Your task to perform on an android device: snooze an email in the gmail app Image 0: 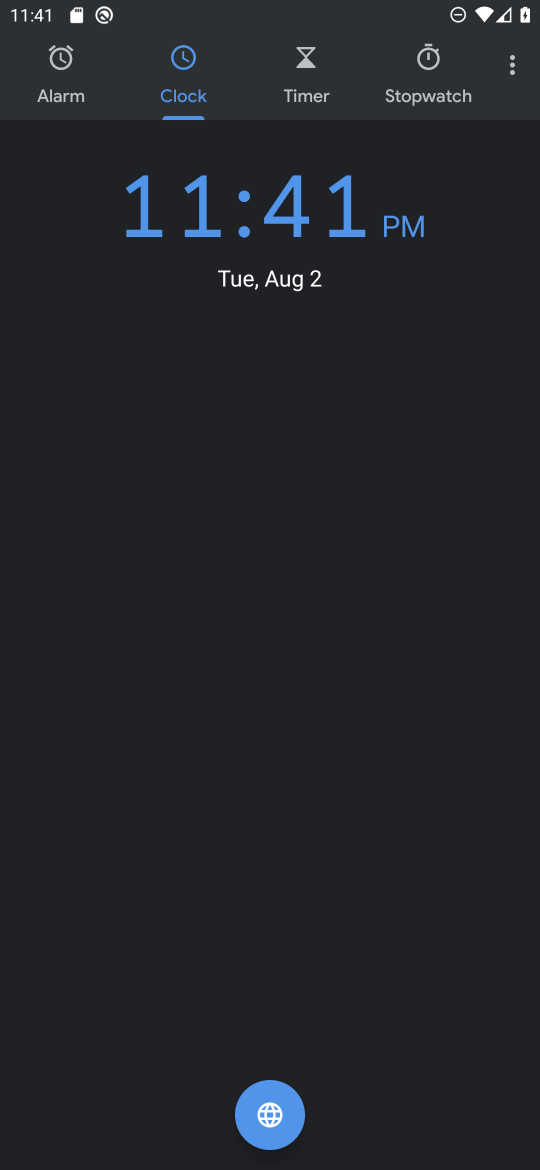
Step 0: press home button
Your task to perform on an android device: snooze an email in the gmail app Image 1: 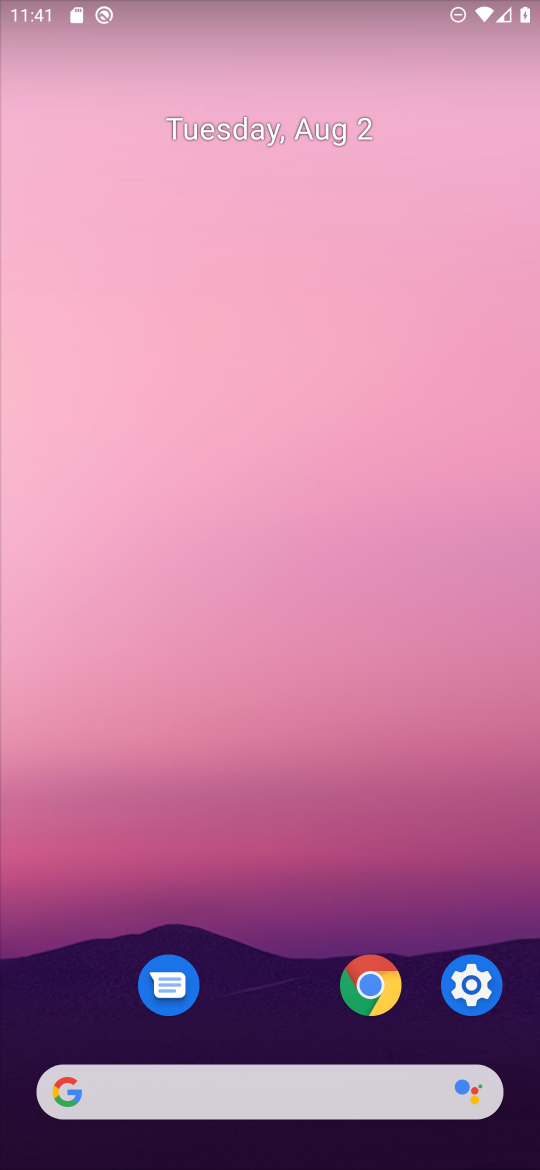
Step 1: drag from (429, 1091) to (453, 255)
Your task to perform on an android device: snooze an email in the gmail app Image 2: 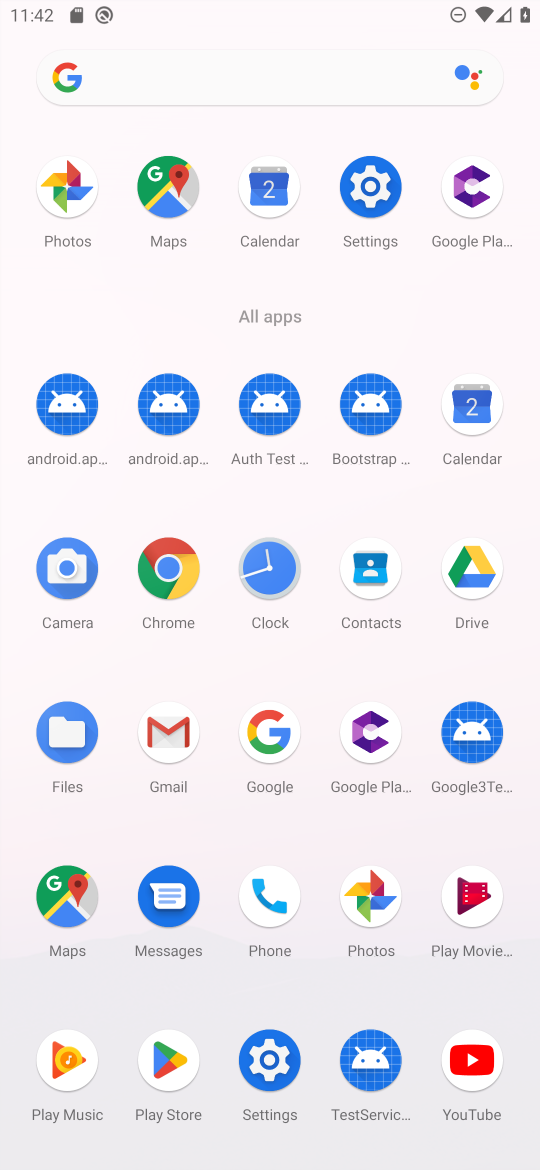
Step 2: click (175, 756)
Your task to perform on an android device: snooze an email in the gmail app Image 3: 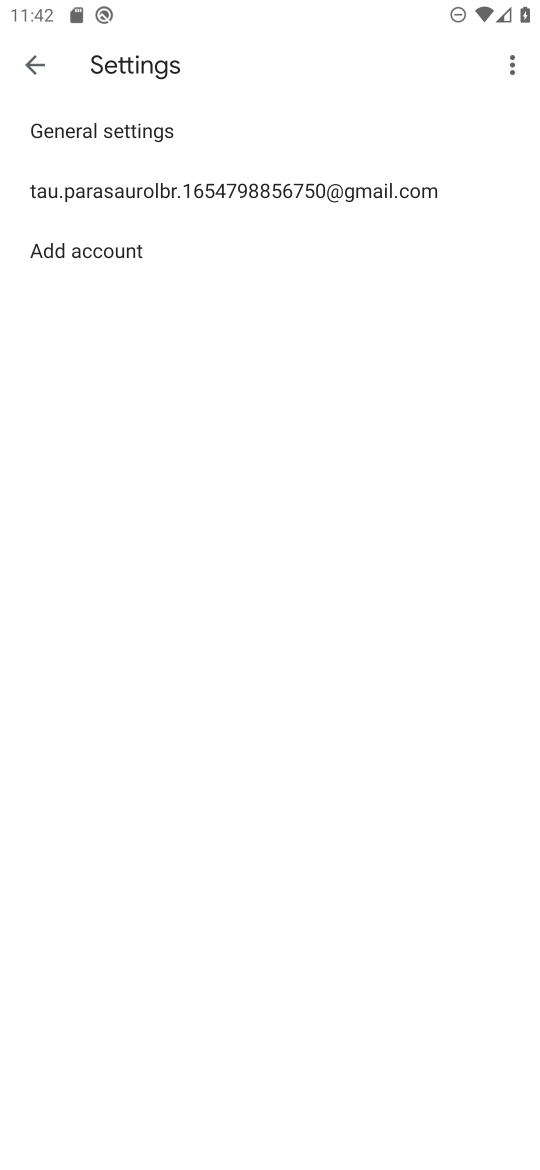
Step 3: click (35, 47)
Your task to perform on an android device: snooze an email in the gmail app Image 4: 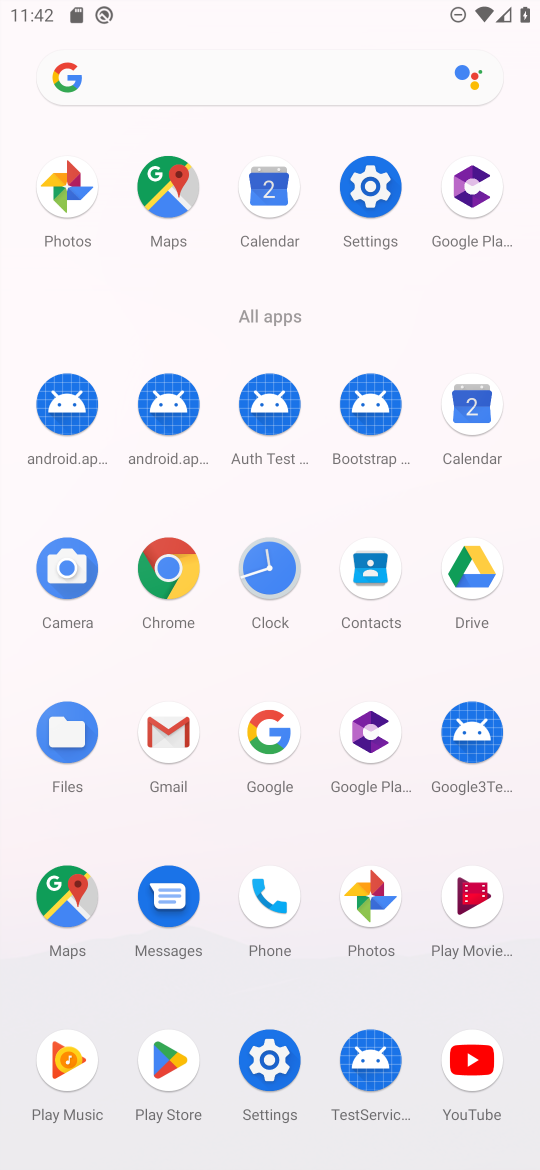
Step 4: click (191, 731)
Your task to perform on an android device: snooze an email in the gmail app Image 5: 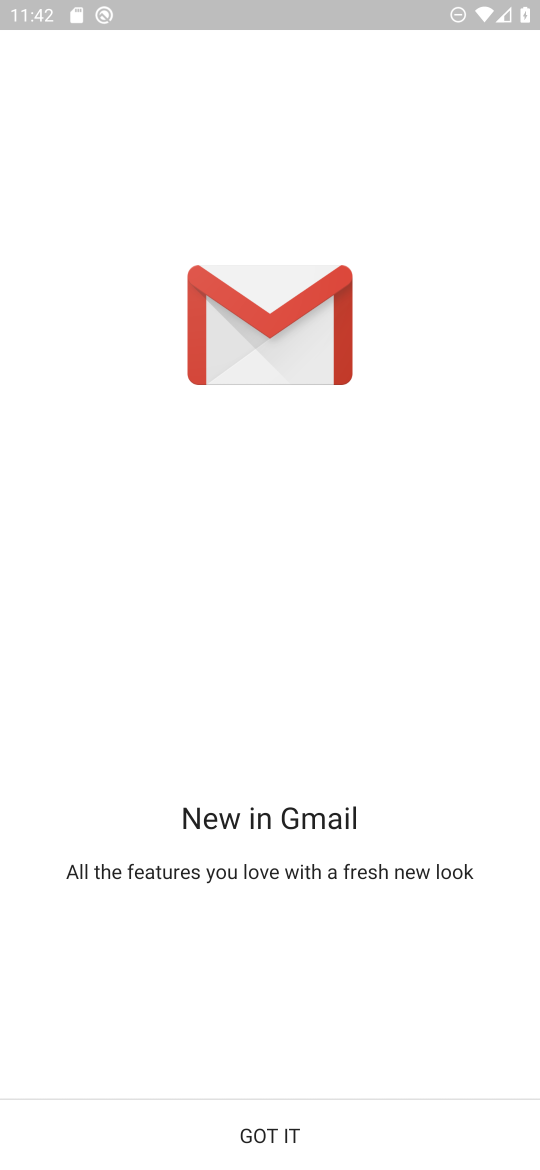
Step 5: click (242, 1123)
Your task to perform on an android device: snooze an email in the gmail app Image 6: 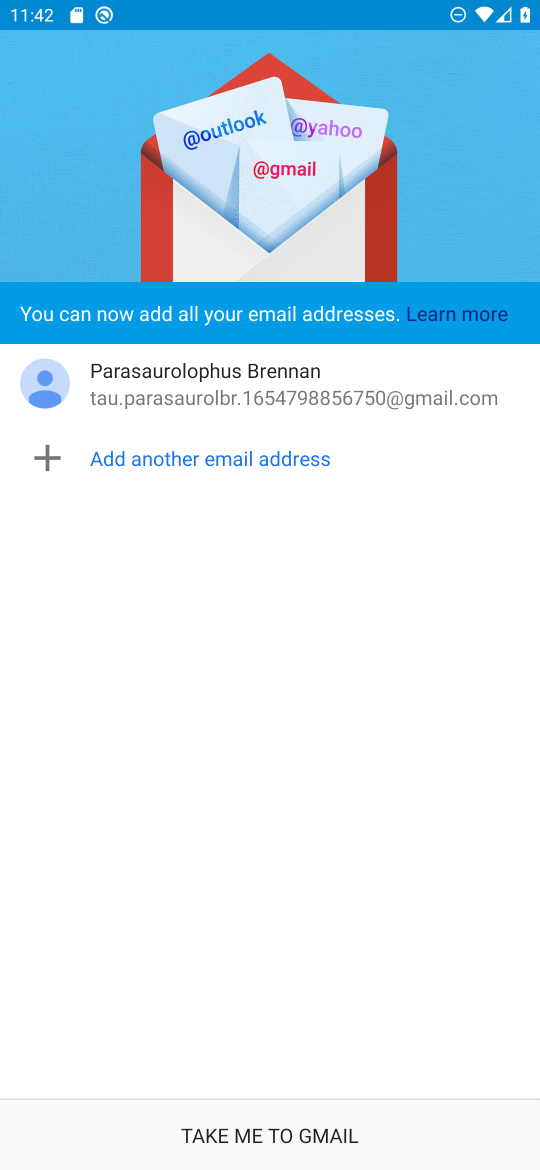
Step 6: click (271, 1133)
Your task to perform on an android device: snooze an email in the gmail app Image 7: 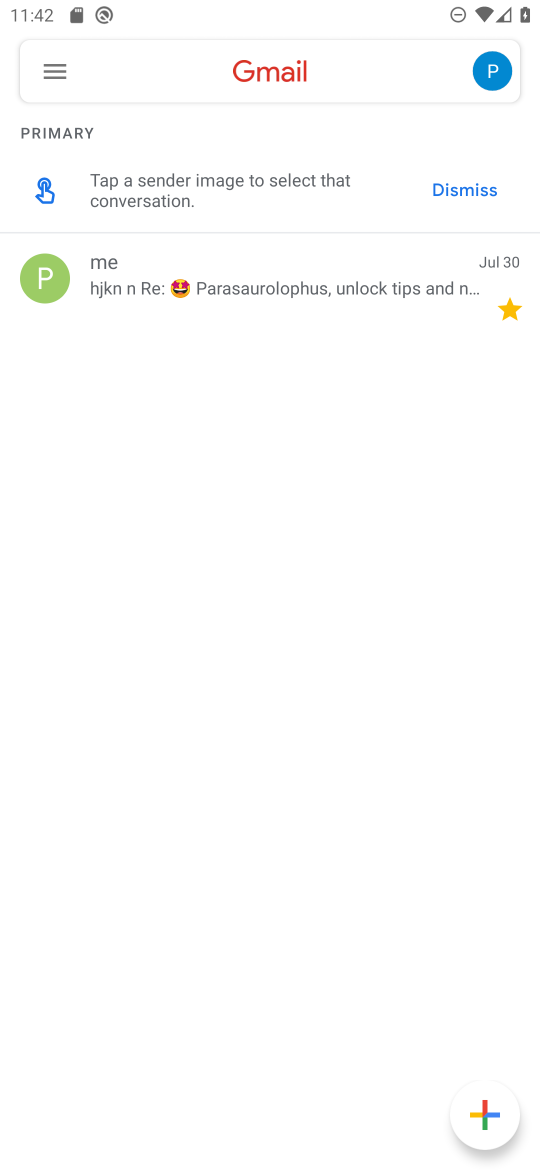
Step 7: click (62, 61)
Your task to perform on an android device: snooze an email in the gmail app Image 8: 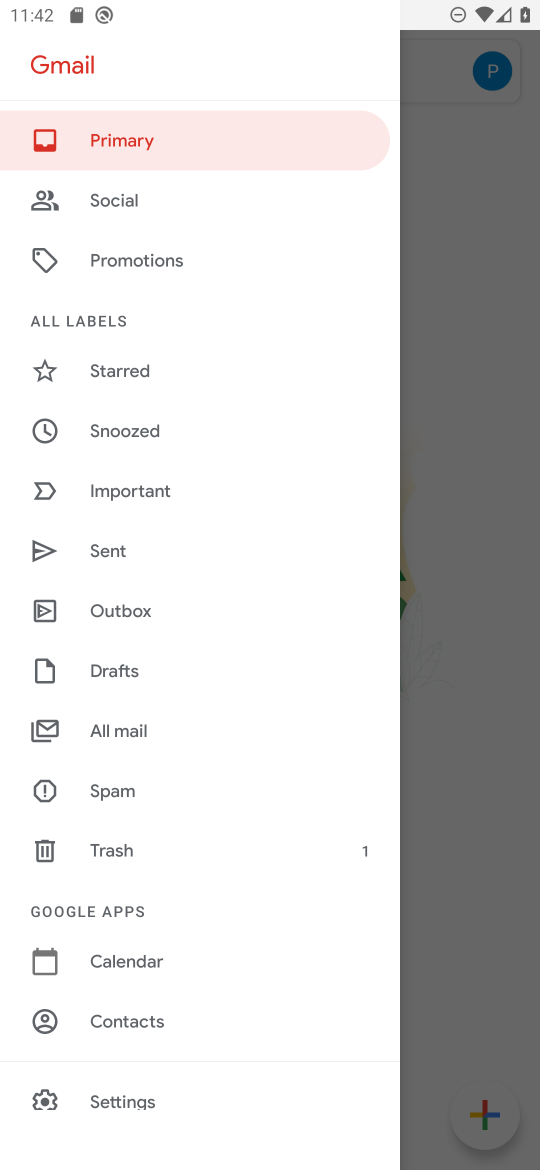
Step 8: click (145, 432)
Your task to perform on an android device: snooze an email in the gmail app Image 9: 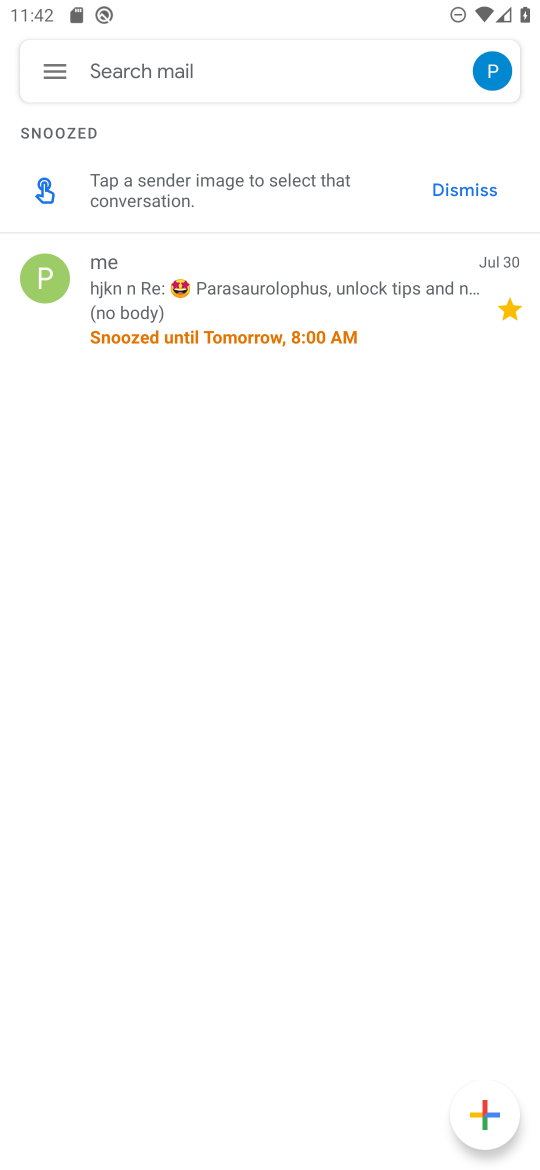
Step 9: click (438, 176)
Your task to perform on an android device: snooze an email in the gmail app Image 10: 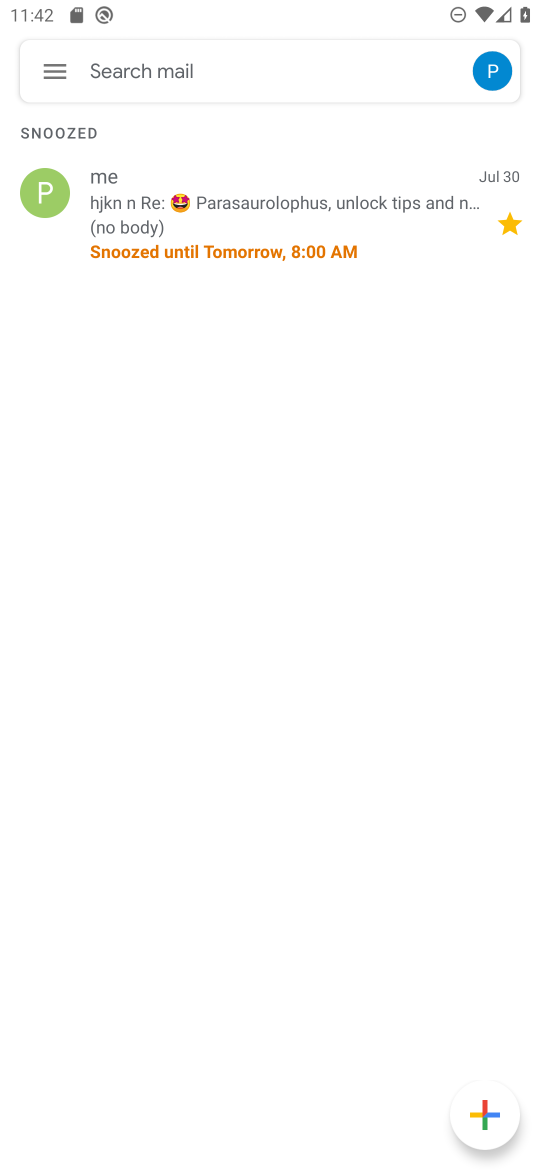
Step 10: click (213, 202)
Your task to perform on an android device: snooze an email in the gmail app Image 11: 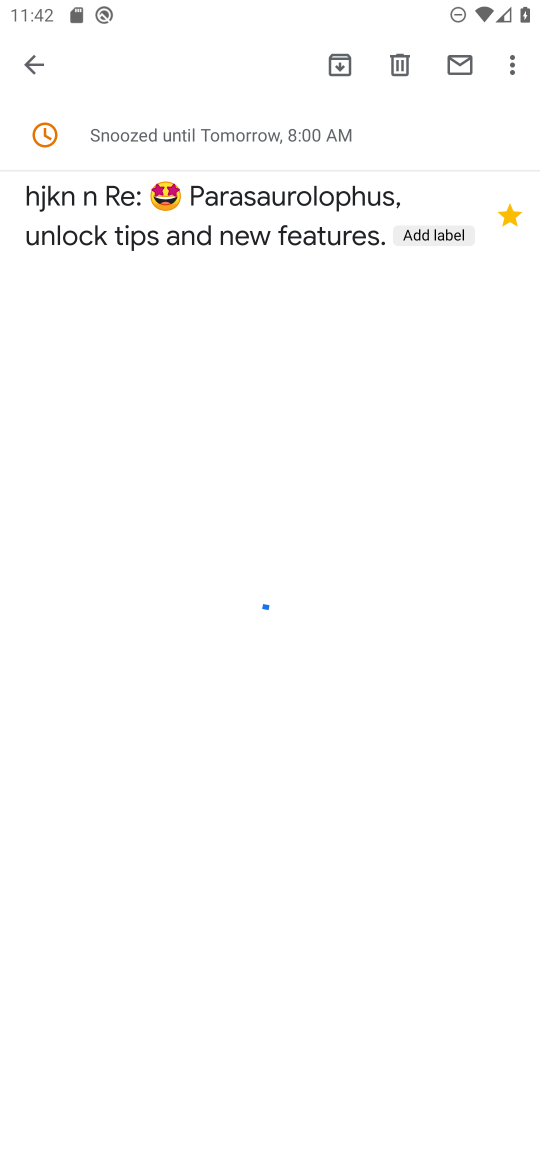
Step 11: click (521, 79)
Your task to perform on an android device: snooze an email in the gmail app Image 12: 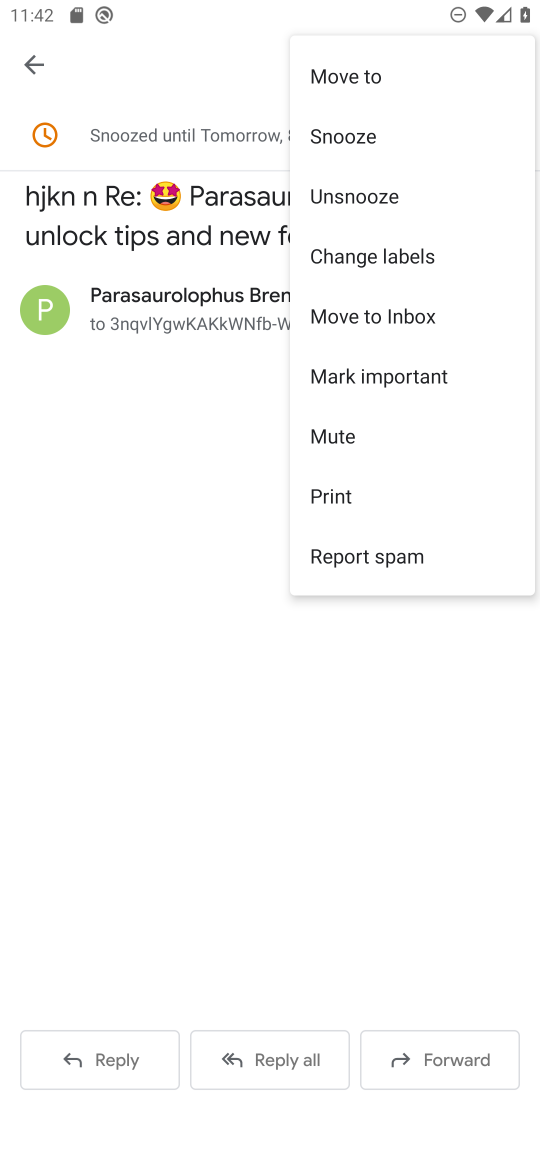
Step 12: click (128, 232)
Your task to perform on an android device: snooze an email in the gmail app Image 13: 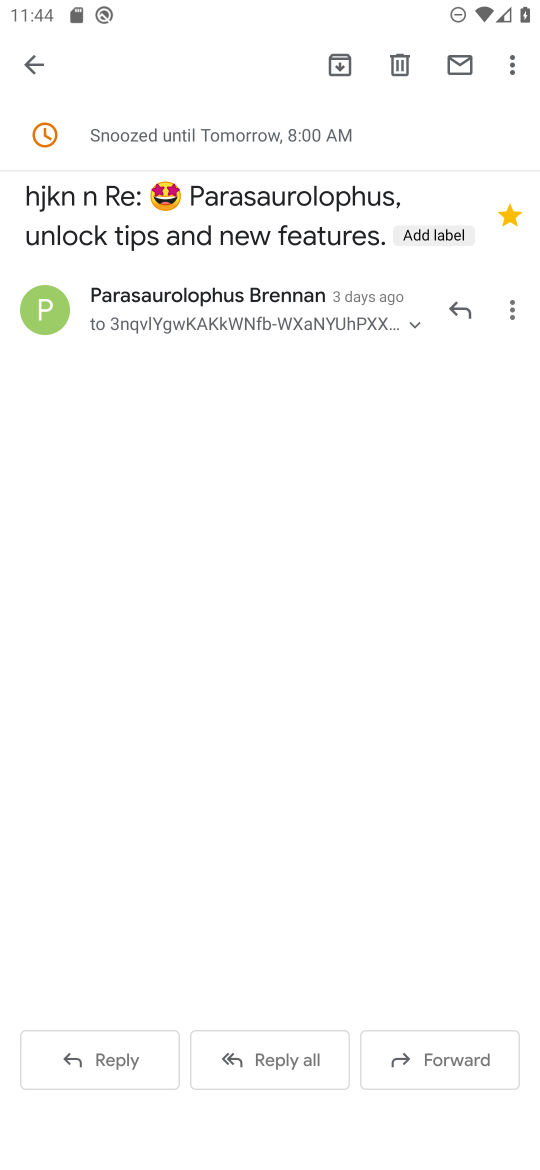
Step 13: task complete